Your task to perform on an android device: turn off location Image 0: 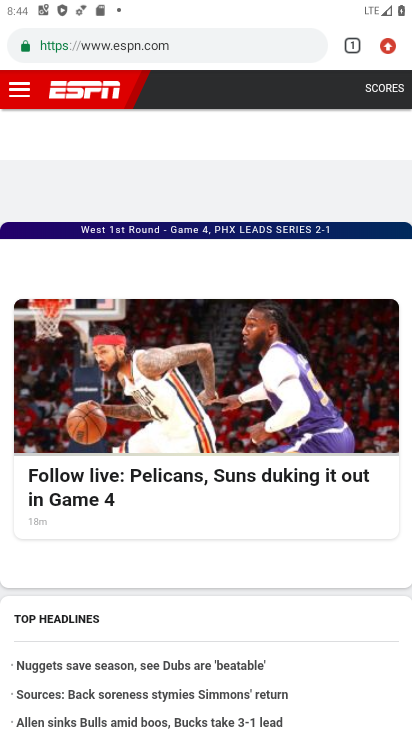
Step 0: press back button
Your task to perform on an android device: turn off location Image 1: 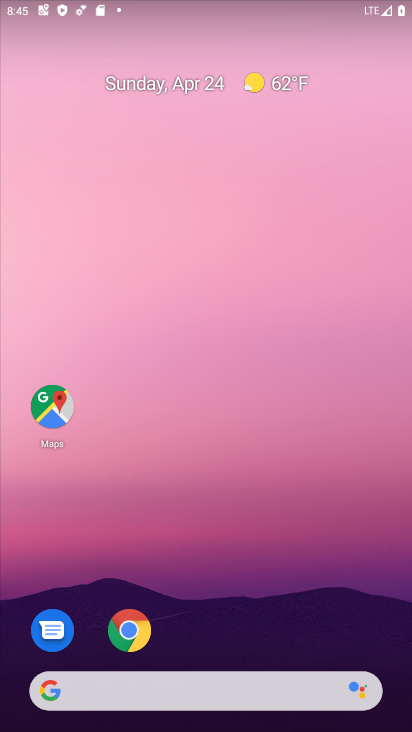
Step 1: drag from (258, 487) to (243, 0)
Your task to perform on an android device: turn off location Image 2: 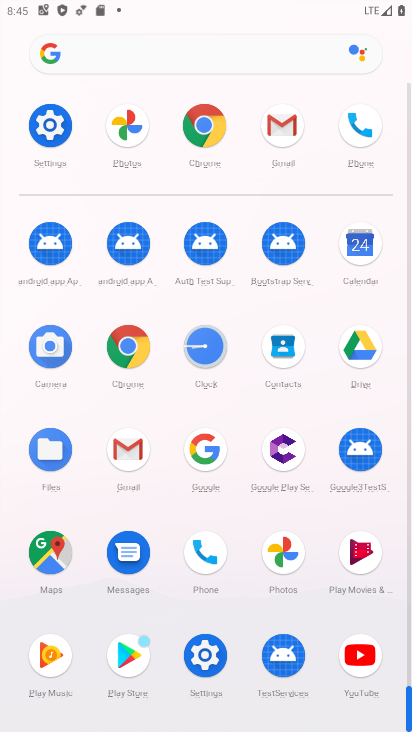
Step 2: click (203, 653)
Your task to perform on an android device: turn off location Image 3: 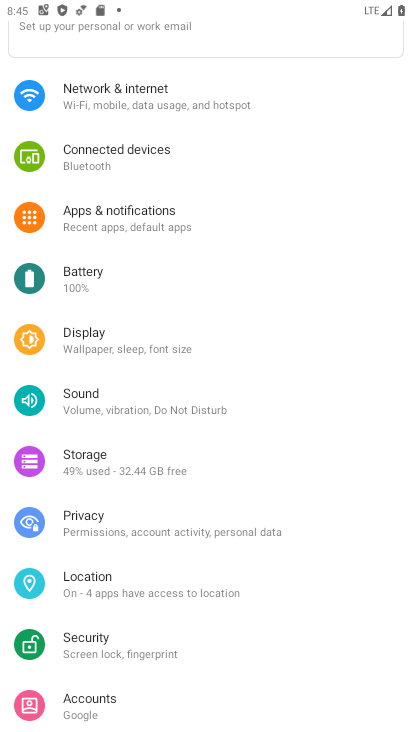
Step 3: click (133, 581)
Your task to perform on an android device: turn off location Image 4: 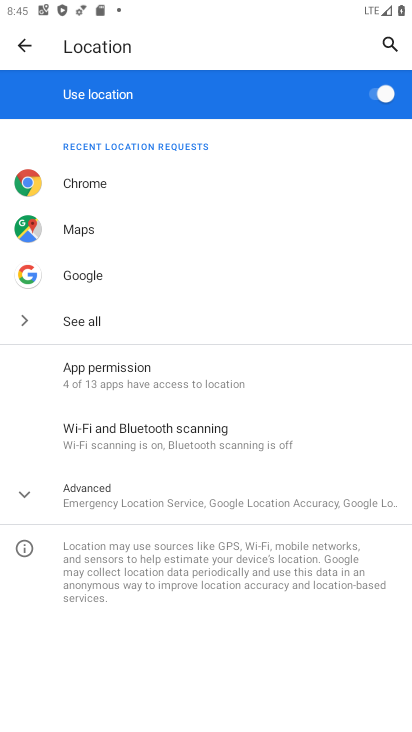
Step 4: click (372, 94)
Your task to perform on an android device: turn off location Image 5: 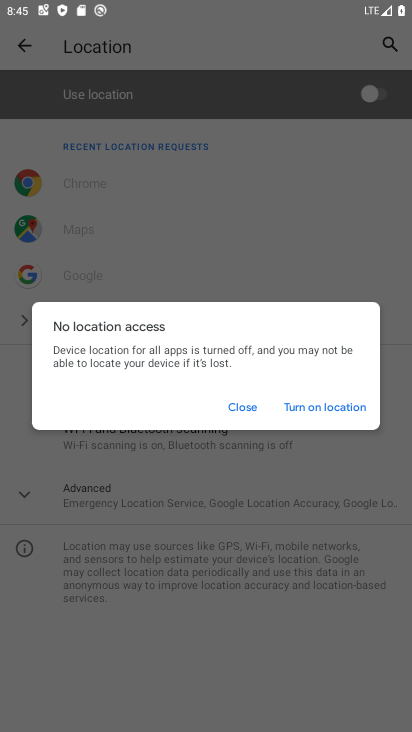
Step 5: click (242, 406)
Your task to perform on an android device: turn off location Image 6: 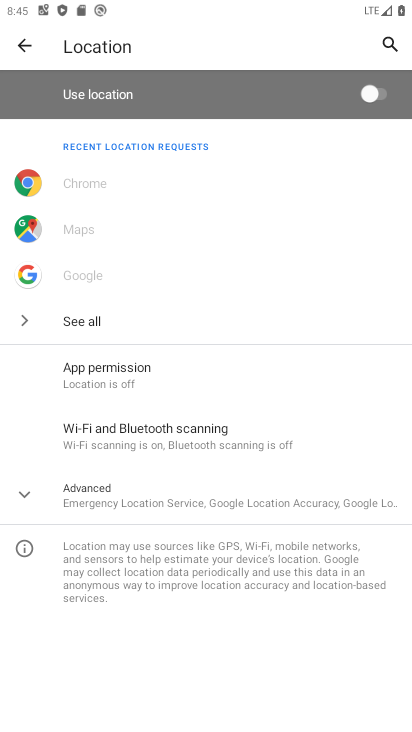
Step 6: task complete